Your task to perform on an android device: Add razer thresher to the cart on walmart, then select checkout. Image 0: 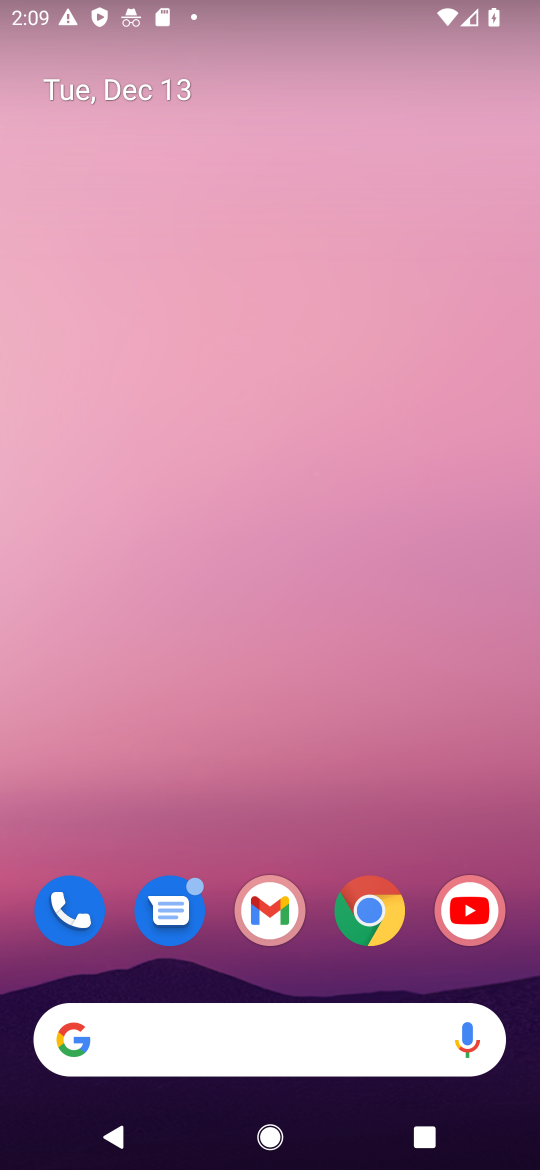
Step 0: click (378, 923)
Your task to perform on an android device: Add razer thresher to the cart on walmart, then select checkout. Image 1: 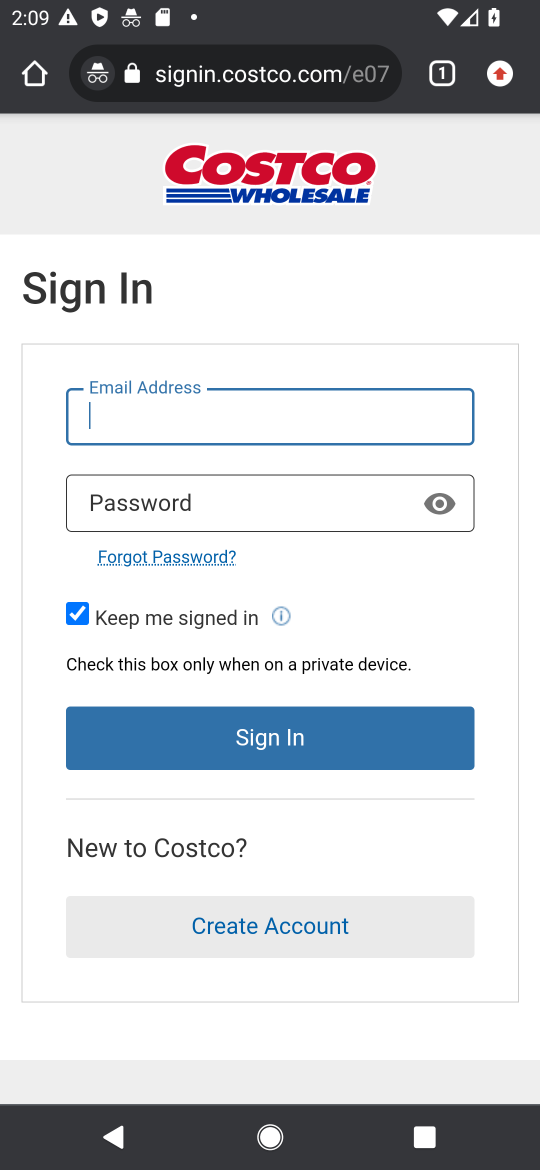
Step 1: click (219, 85)
Your task to perform on an android device: Add razer thresher to the cart on walmart, then select checkout. Image 2: 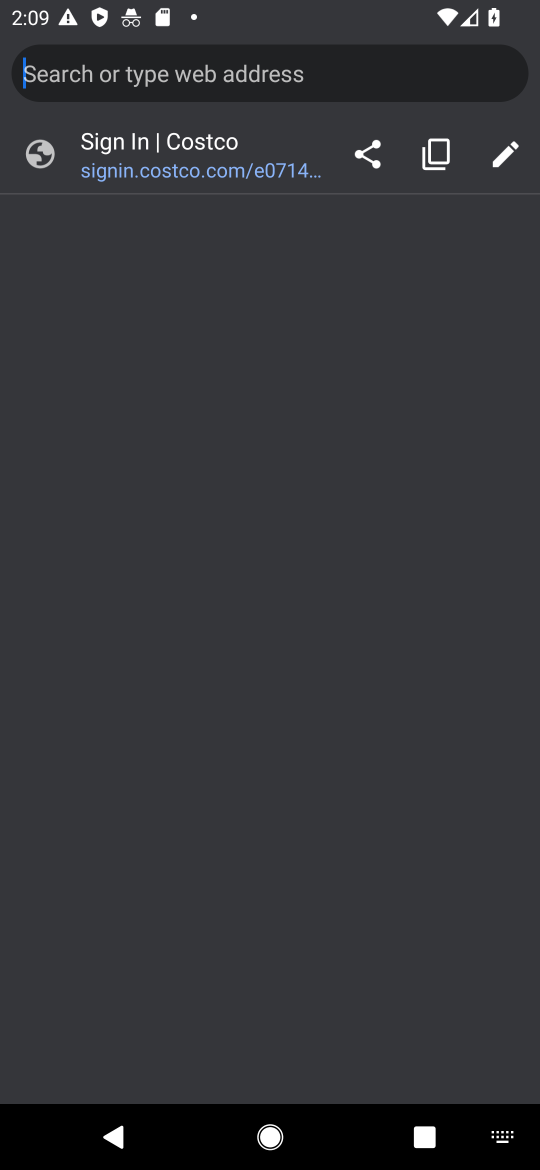
Step 2: type "WALMART"
Your task to perform on an android device: Add razer thresher to the cart on walmart, then select checkout. Image 3: 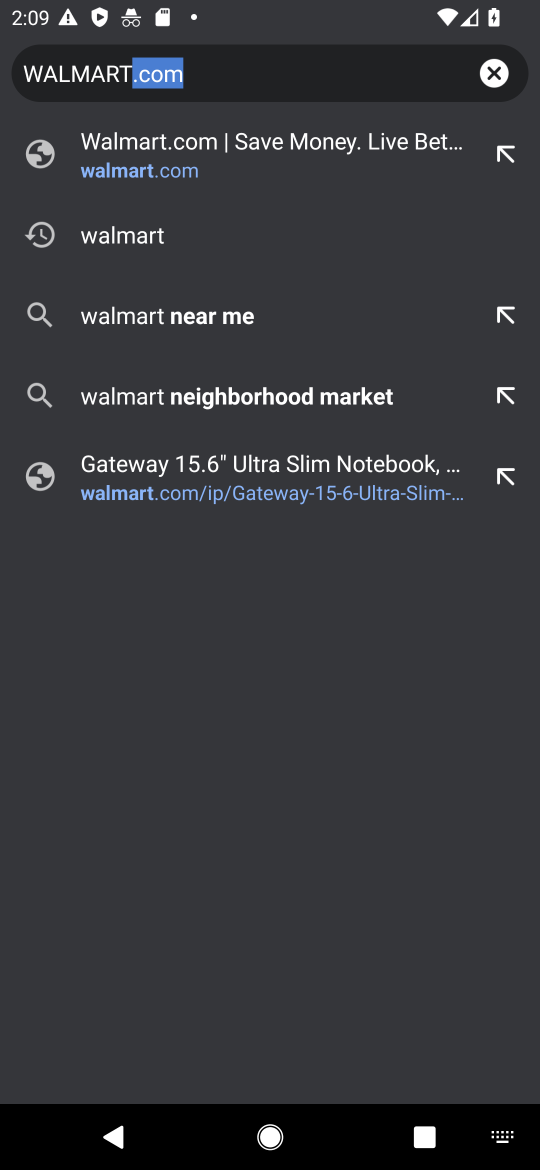
Step 3: click (218, 176)
Your task to perform on an android device: Add razer thresher to the cart on walmart, then select checkout. Image 4: 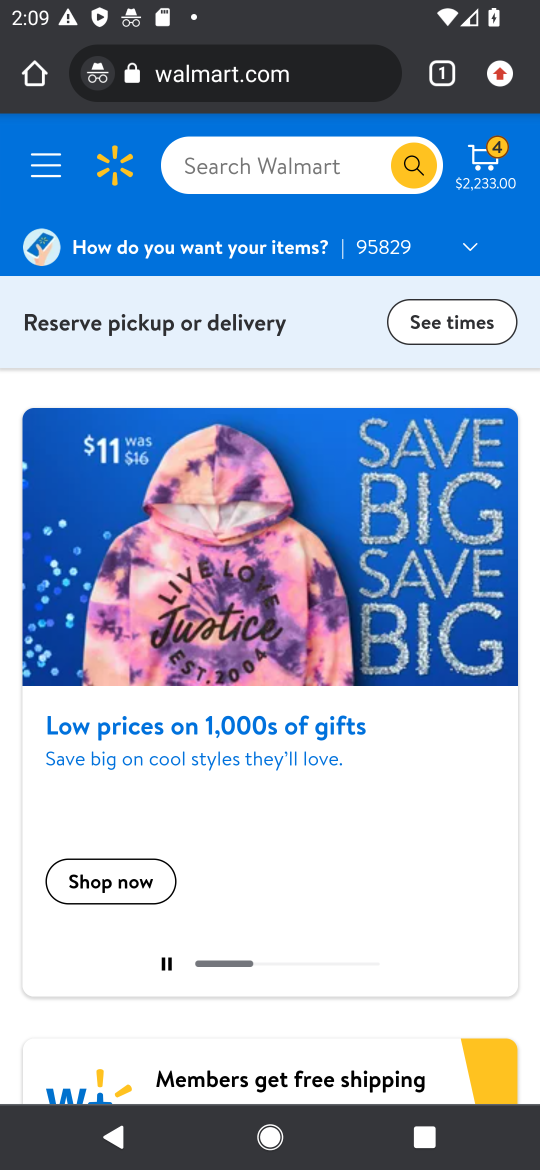
Step 4: click (314, 159)
Your task to perform on an android device: Add razer thresher to the cart on walmart, then select checkout. Image 5: 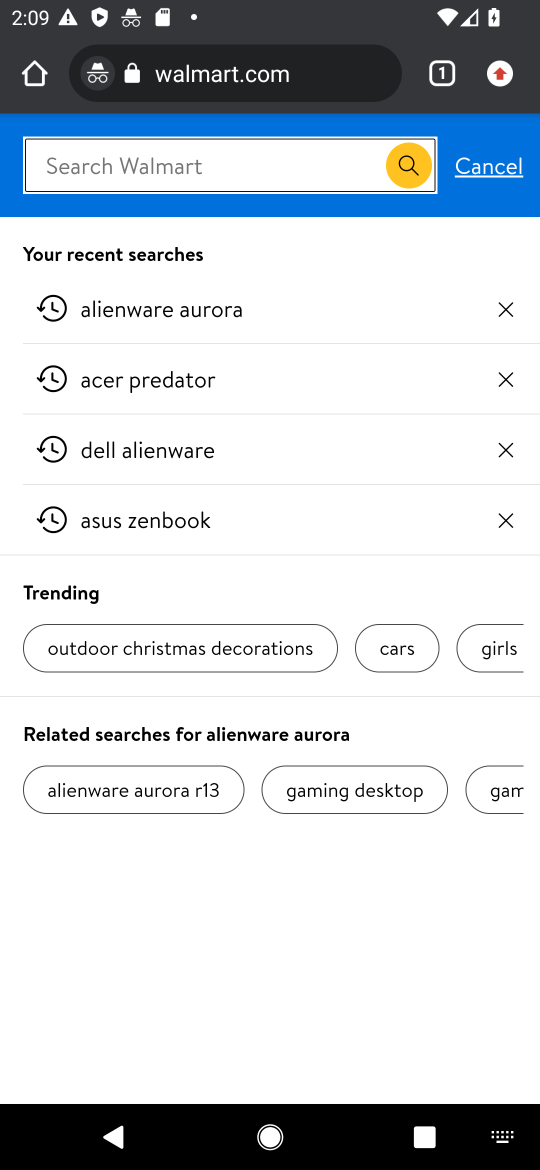
Step 5: click (287, 173)
Your task to perform on an android device: Add razer thresher to the cart on walmart, then select checkout. Image 6: 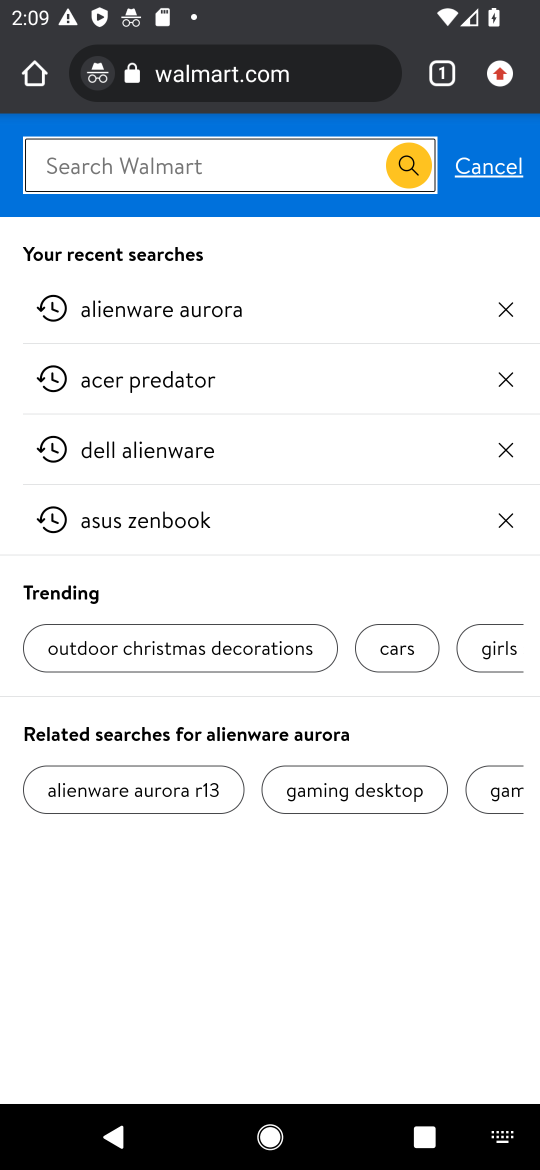
Step 6: type "razer thresher"
Your task to perform on an android device: Add razer thresher to the cart on walmart, then select checkout. Image 7: 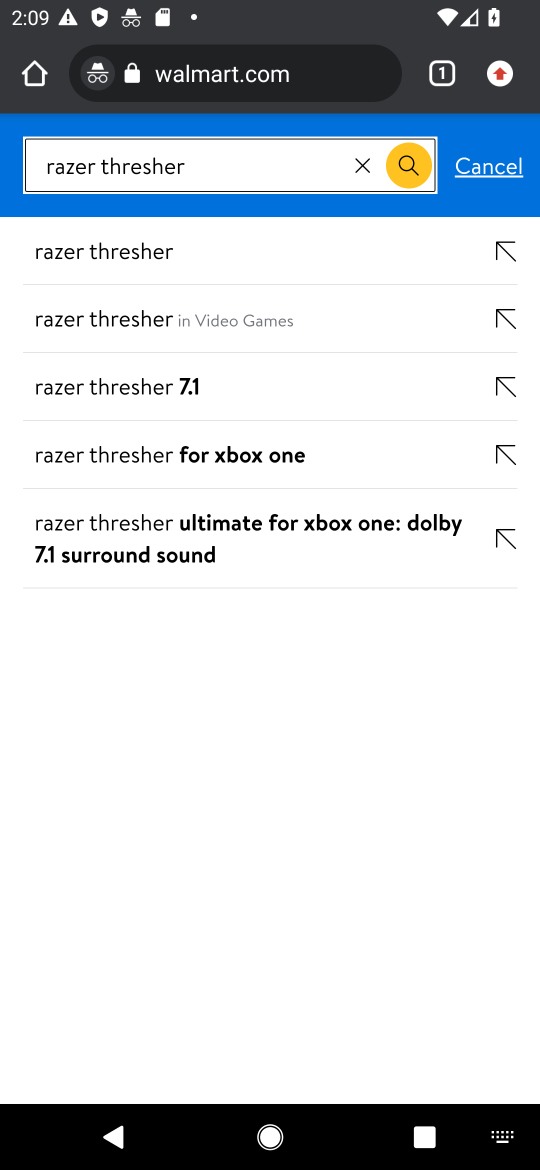
Step 7: click (412, 162)
Your task to perform on an android device: Add razer thresher to the cart on walmart, then select checkout. Image 8: 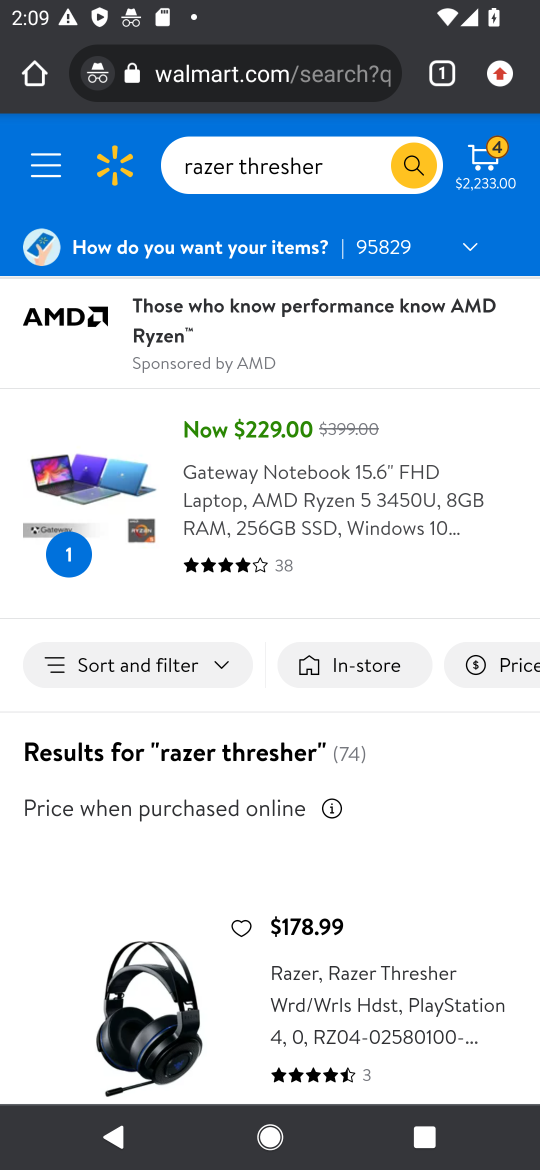
Step 8: drag from (387, 912) to (328, 252)
Your task to perform on an android device: Add razer thresher to the cart on walmart, then select checkout. Image 9: 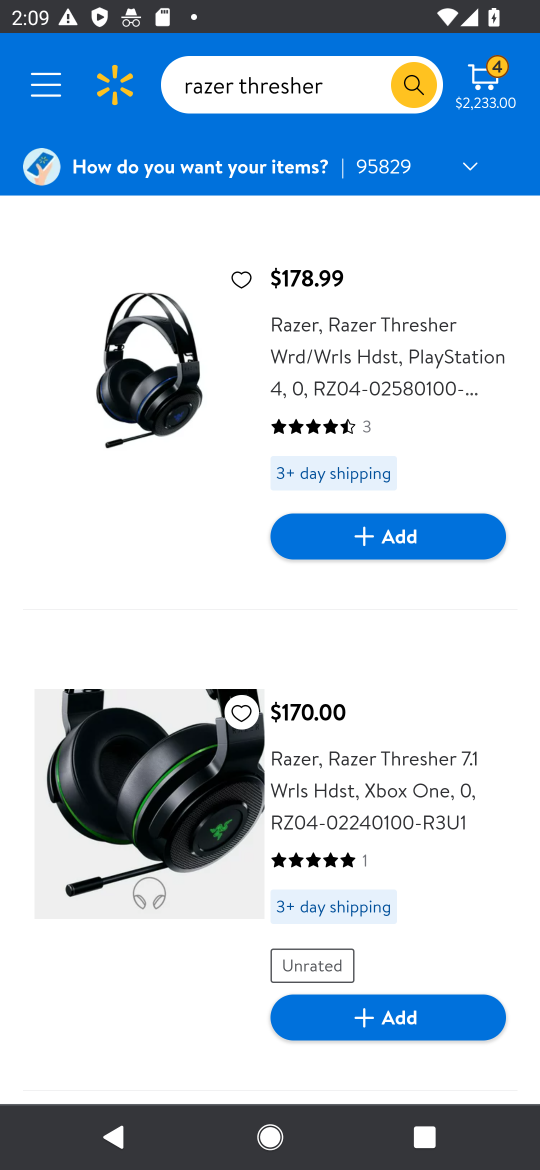
Step 9: click (388, 547)
Your task to perform on an android device: Add razer thresher to the cart on walmart, then select checkout. Image 10: 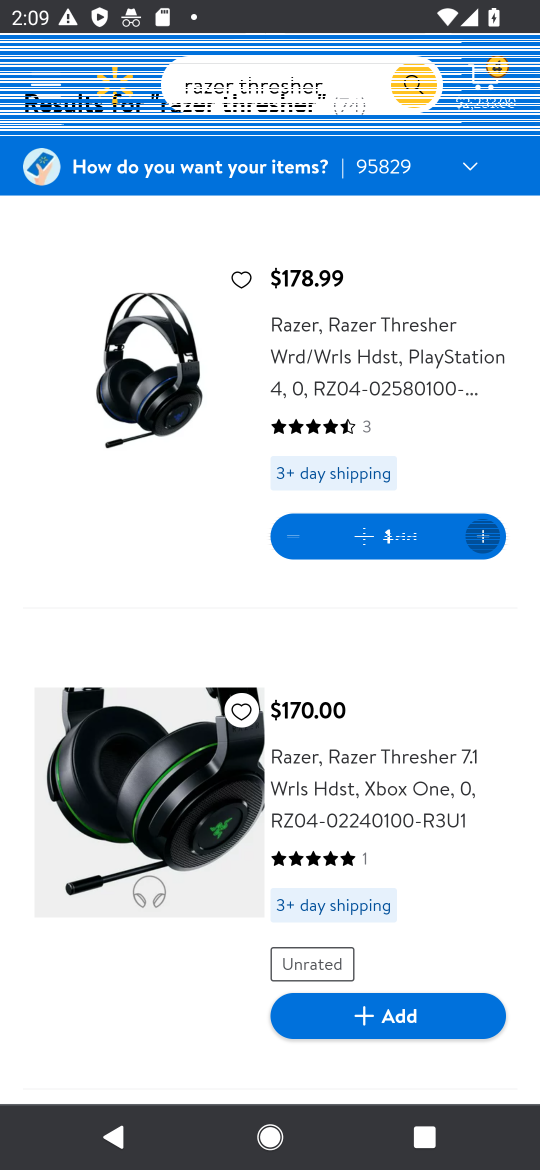
Step 10: click (482, 76)
Your task to perform on an android device: Add razer thresher to the cart on walmart, then select checkout. Image 11: 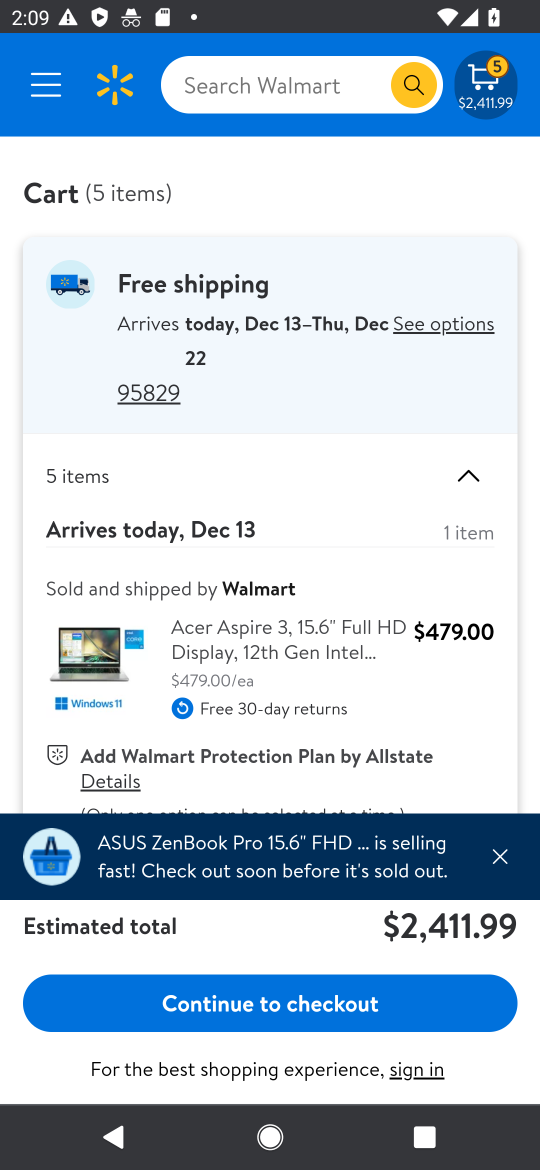
Step 11: click (287, 1007)
Your task to perform on an android device: Add razer thresher to the cart on walmart, then select checkout. Image 12: 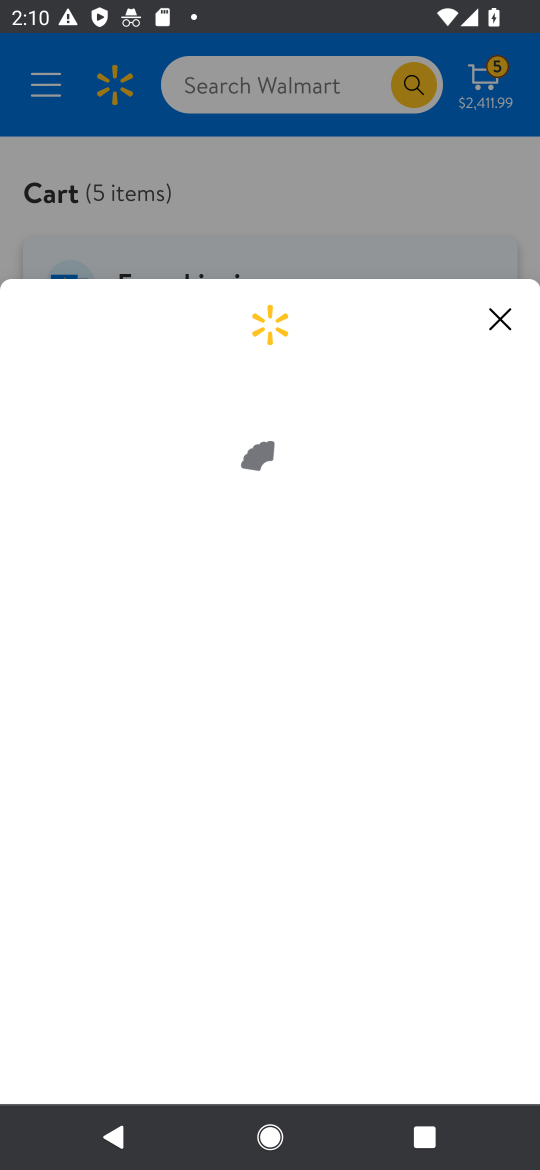
Step 12: task complete